Your task to perform on an android device: View the shopping cart on bestbuy. Search for macbook pro 13 inch on bestbuy, select the first entry, add it to the cart, then select checkout. Image 0: 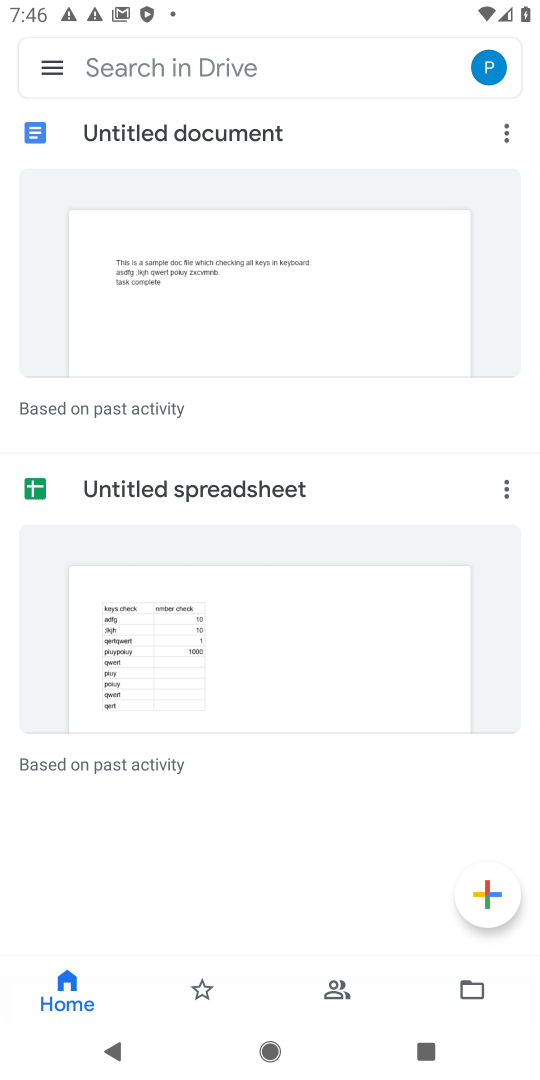
Step 0: press home button
Your task to perform on an android device: View the shopping cart on bestbuy. Search for macbook pro 13 inch on bestbuy, select the first entry, add it to the cart, then select checkout. Image 1: 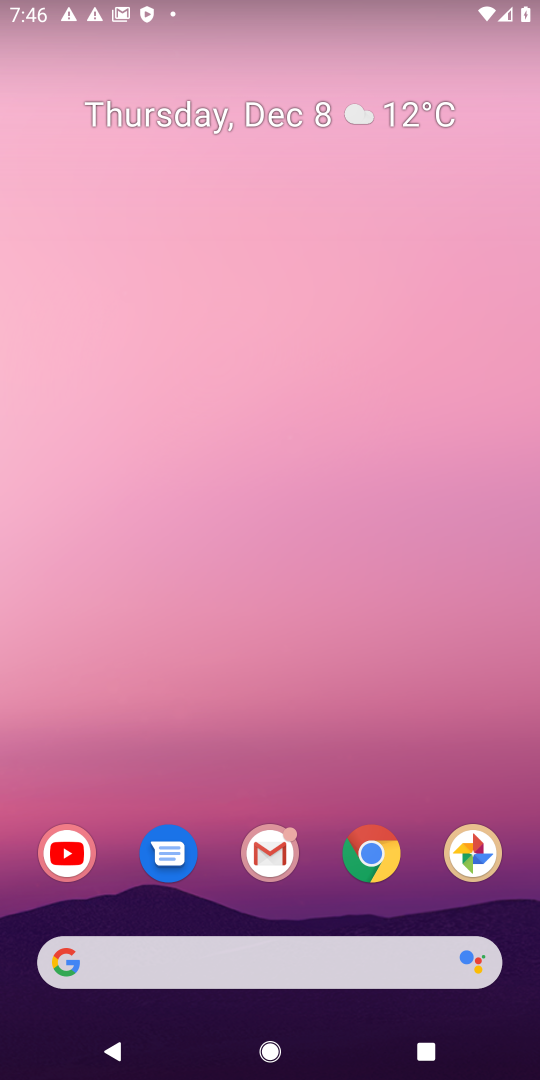
Step 1: click (180, 965)
Your task to perform on an android device: View the shopping cart on bestbuy. Search for macbook pro 13 inch on bestbuy, select the first entry, add it to the cart, then select checkout. Image 2: 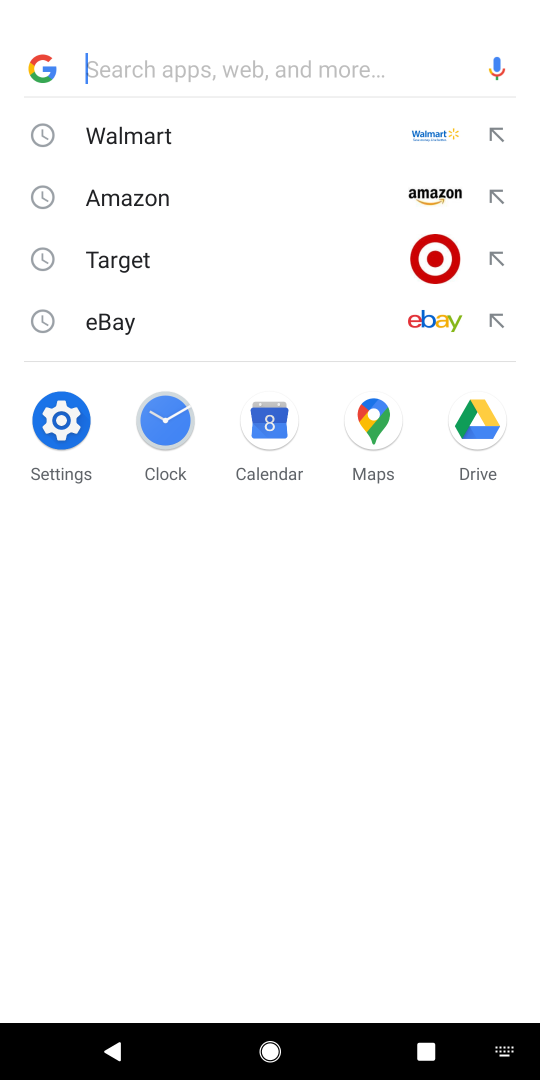
Step 2: type "bestbuy"
Your task to perform on an android device: View the shopping cart on bestbuy. Search for macbook pro 13 inch on bestbuy, select the first entry, add it to the cart, then select checkout. Image 3: 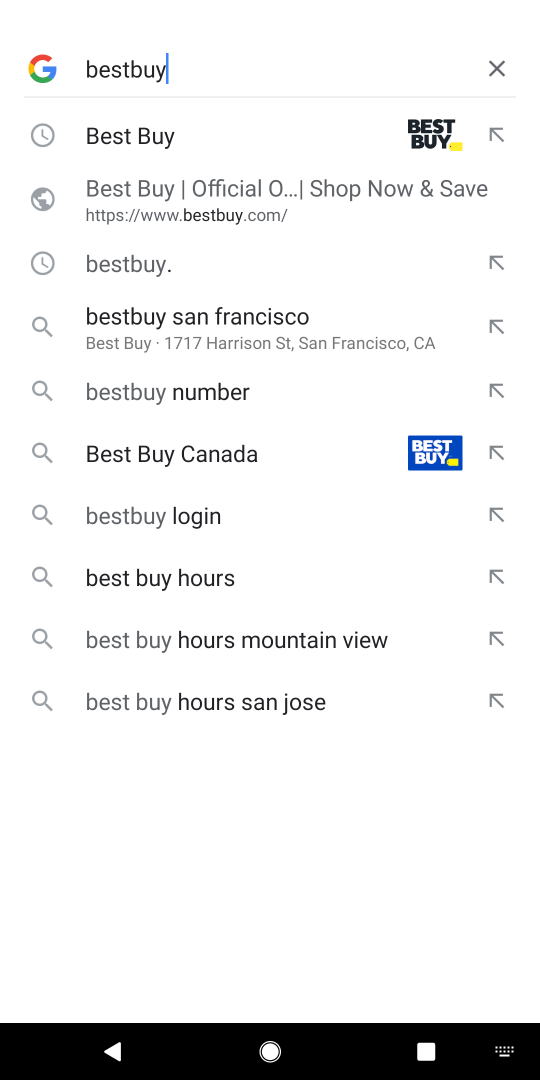
Step 3: click (131, 126)
Your task to perform on an android device: View the shopping cart on bestbuy. Search for macbook pro 13 inch on bestbuy, select the first entry, add it to the cart, then select checkout. Image 4: 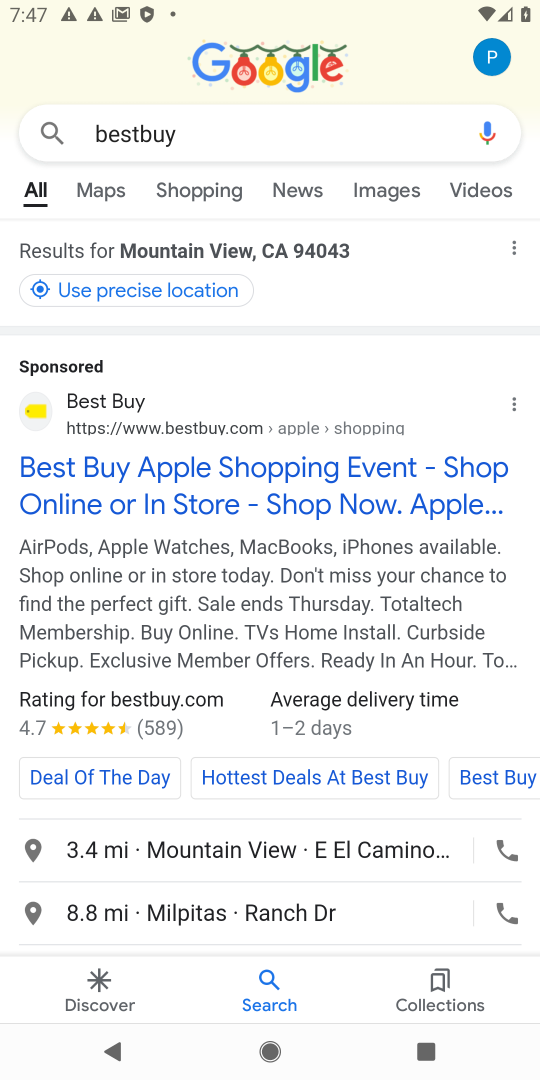
Step 4: click (174, 465)
Your task to perform on an android device: View the shopping cart on bestbuy. Search for macbook pro 13 inch on bestbuy, select the first entry, add it to the cart, then select checkout. Image 5: 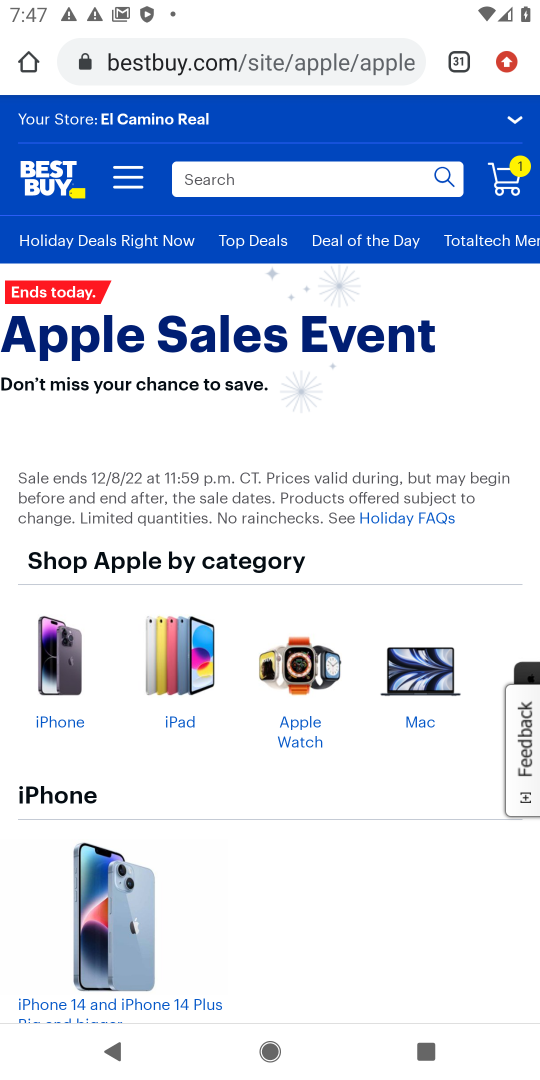
Step 5: click (504, 185)
Your task to perform on an android device: View the shopping cart on bestbuy. Search for macbook pro 13 inch on bestbuy, select the first entry, add it to the cart, then select checkout. Image 6: 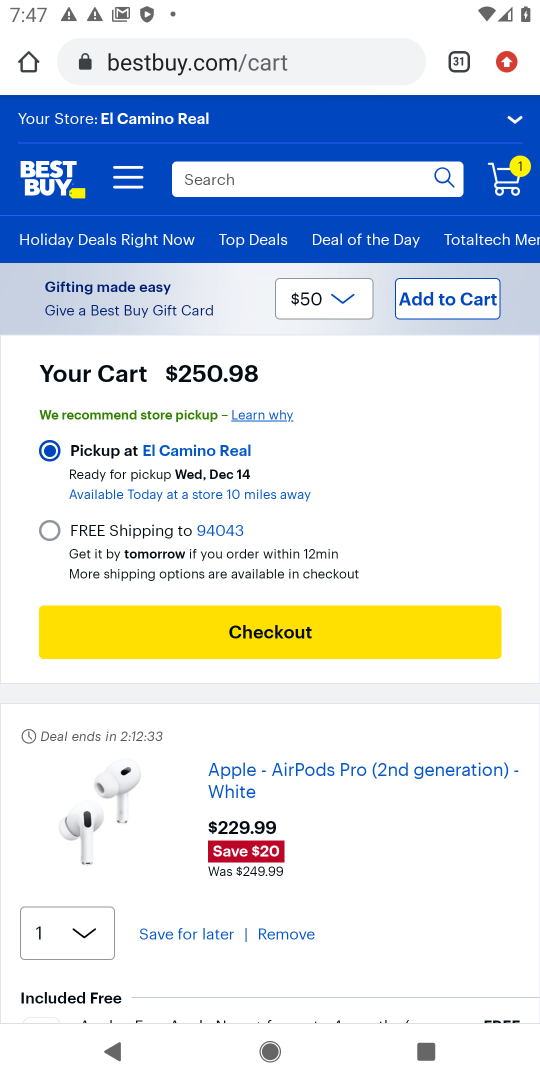
Step 6: click (239, 186)
Your task to perform on an android device: View the shopping cart on bestbuy. Search for macbook pro 13 inch on bestbuy, select the first entry, add it to the cart, then select checkout. Image 7: 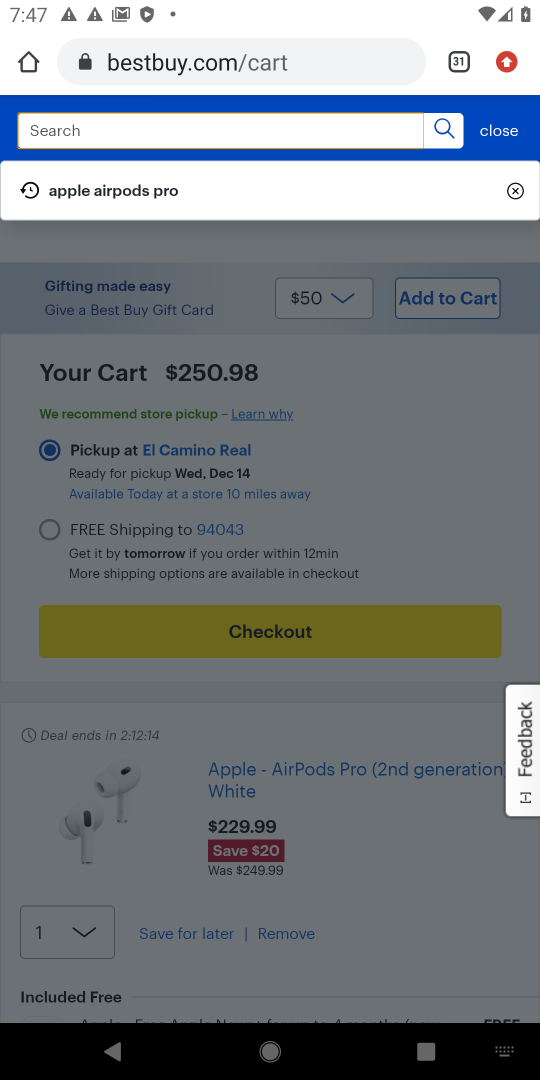
Step 7: type "macbook pro 13 inch"
Your task to perform on an android device: View the shopping cart on bestbuy. Search for macbook pro 13 inch on bestbuy, select the first entry, add it to the cart, then select checkout. Image 8: 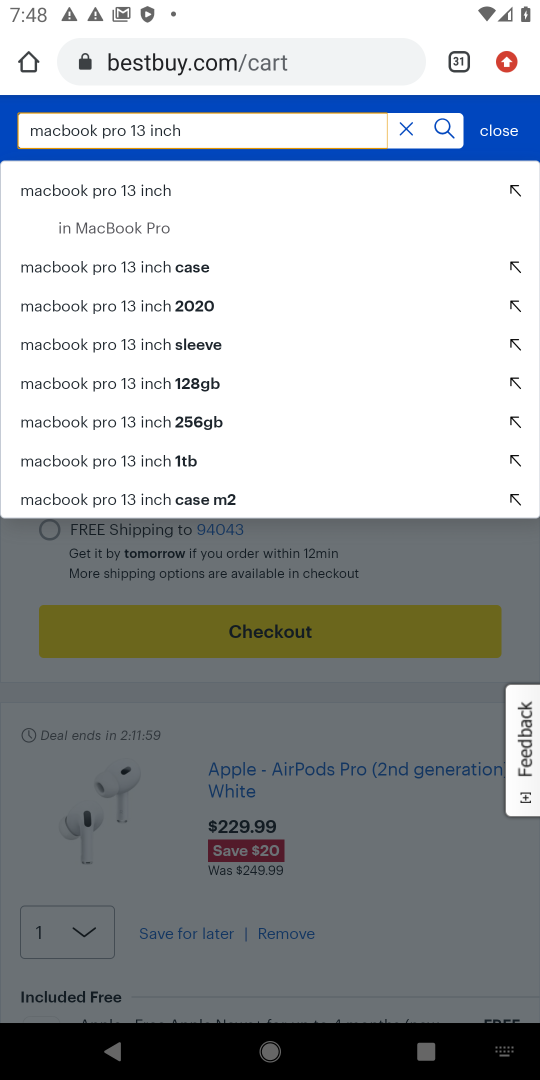
Step 8: click (126, 187)
Your task to perform on an android device: View the shopping cart on bestbuy. Search for macbook pro 13 inch on bestbuy, select the first entry, add it to the cart, then select checkout. Image 9: 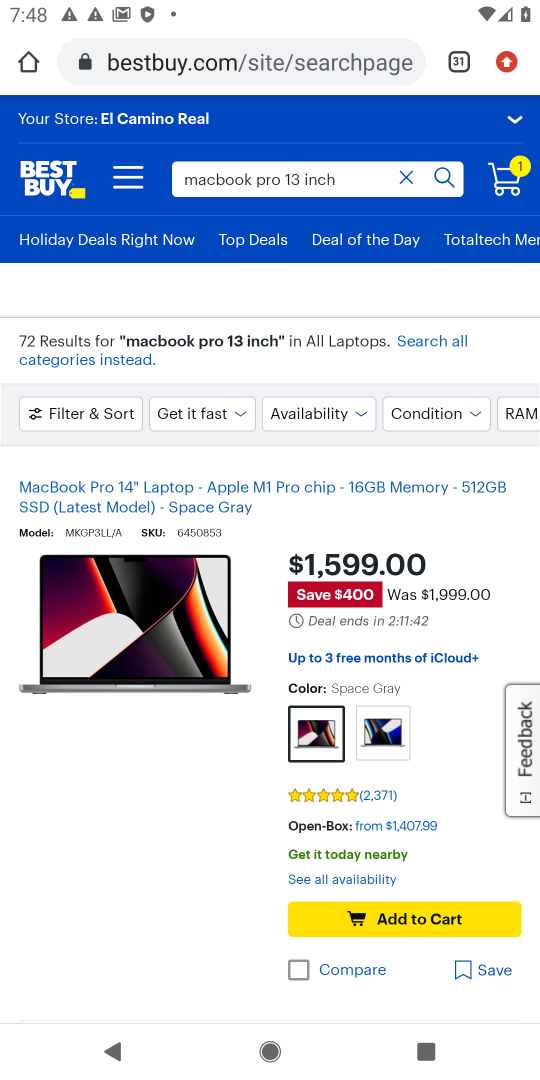
Step 9: click (403, 924)
Your task to perform on an android device: View the shopping cart on bestbuy. Search for macbook pro 13 inch on bestbuy, select the first entry, add it to the cart, then select checkout. Image 10: 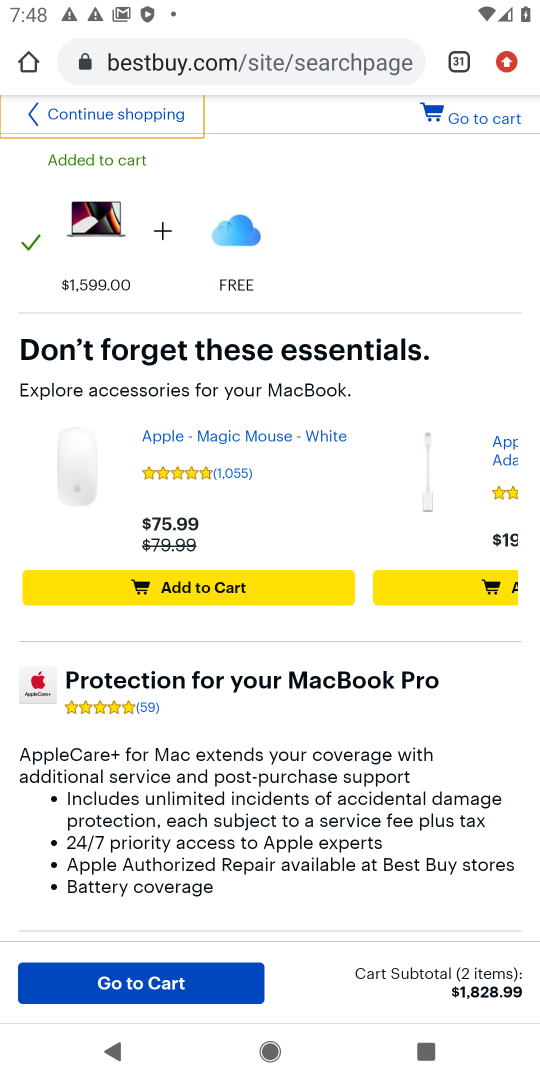
Step 10: click (123, 981)
Your task to perform on an android device: View the shopping cart on bestbuy. Search for macbook pro 13 inch on bestbuy, select the first entry, add it to the cart, then select checkout. Image 11: 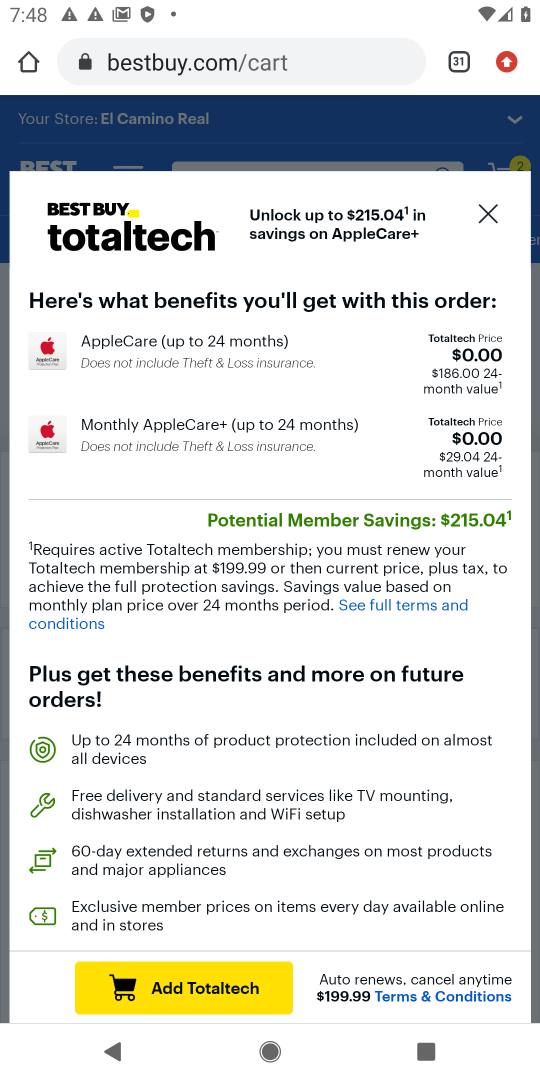
Step 11: click (490, 212)
Your task to perform on an android device: View the shopping cart on bestbuy. Search for macbook pro 13 inch on bestbuy, select the first entry, add it to the cart, then select checkout. Image 12: 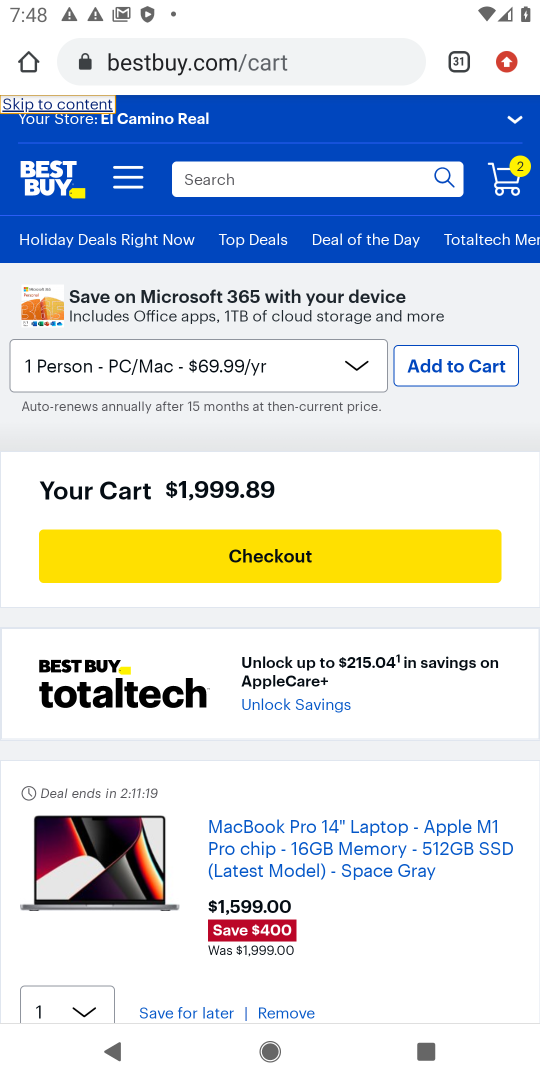
Step 12: click (265, 563)
Your task to perform on an android device: View the shopping cart on bestbuy. Search for macbook pro 13 inch on bestbuy, select the first entry, add it to the cart, then select checkout. Image 13: 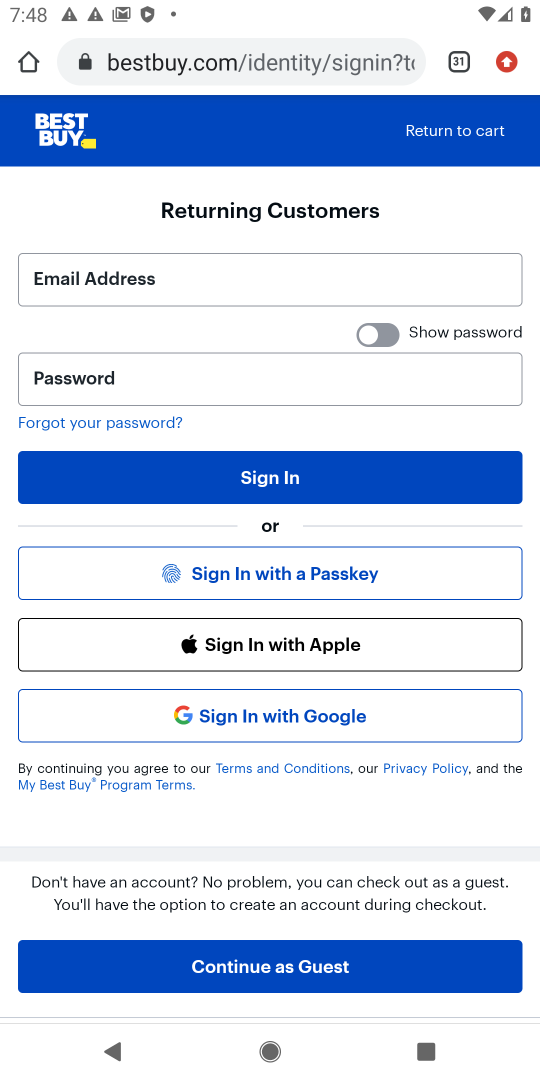
Step 13: task complete